Your task to perform on an android device: all mails in gmail Image 0: 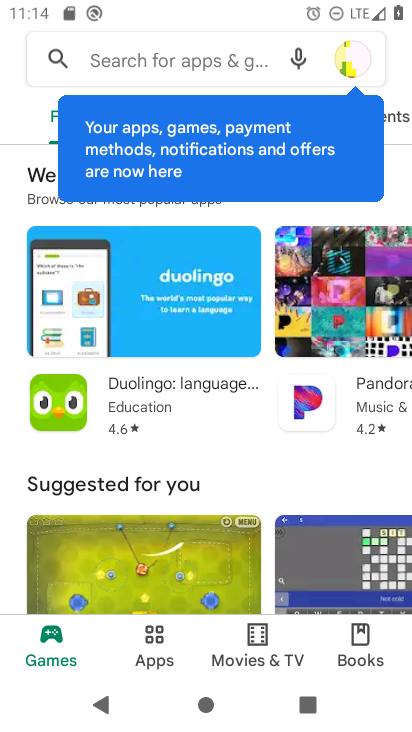
Step 0: press home button
Your task to perform on an android device: all mails in gmail Image 1: 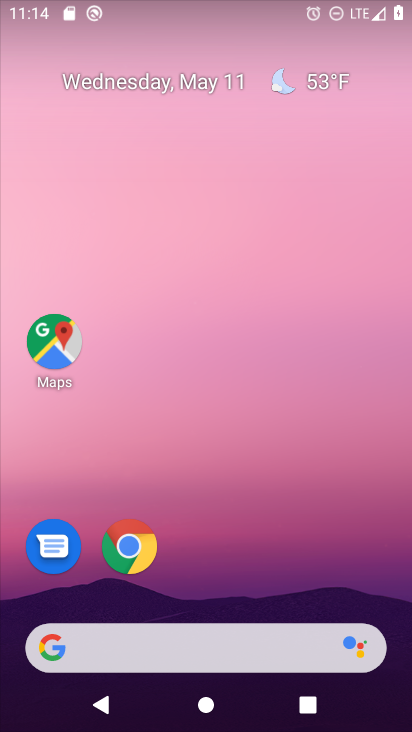
Step 1: drag from (375, 605) to (172, 14)
Your task to perform on an android device: all mails in gmail Image 2: 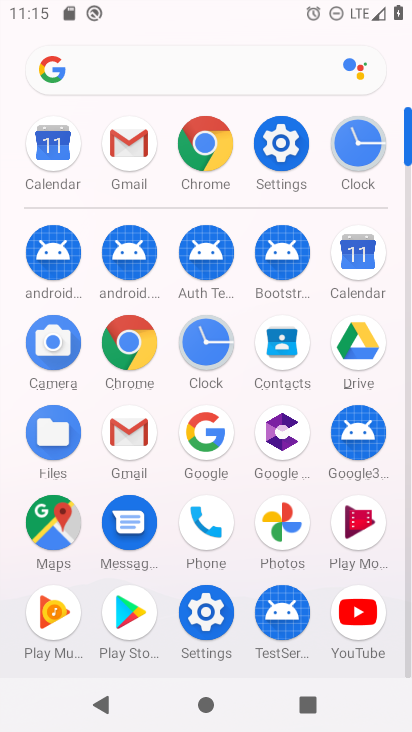
Step 2: click (125, 424)
Your task to perform on an android device: all mails in gmail Image 3: 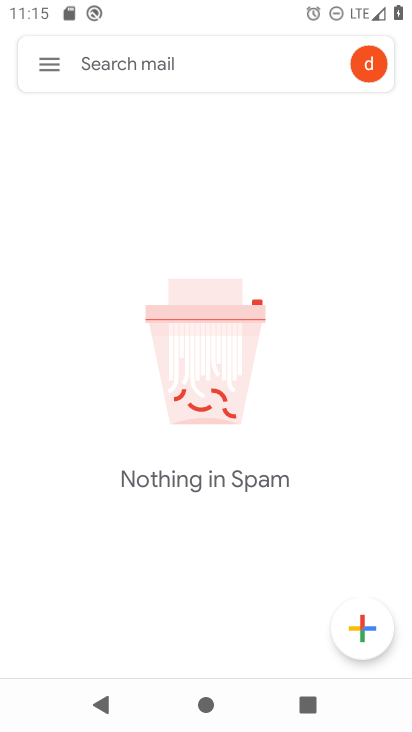
Step 3: click (43, 72)
Your task to perform on an android device: all mails in gmail Image 4: 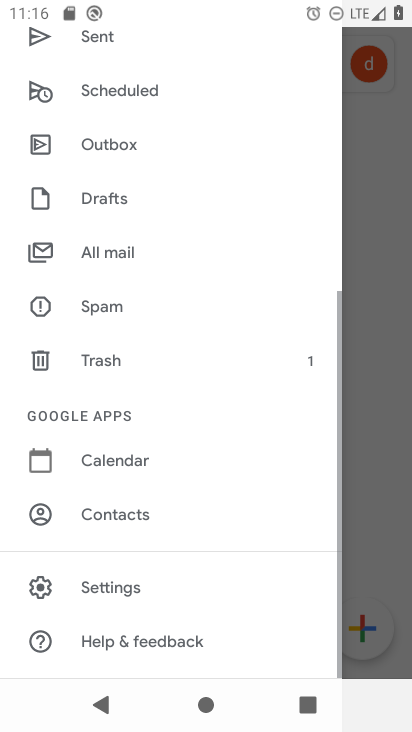
Step 4: click (95, 242)
Your task to perform on an android device: all mails in gmail Image 5: 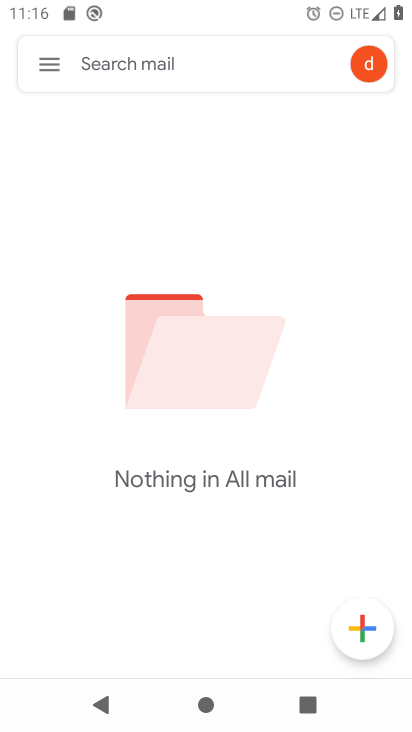
Step 5: task complete